Your task to perform on an android device: Go to calendar. Show me events next week Image 0: 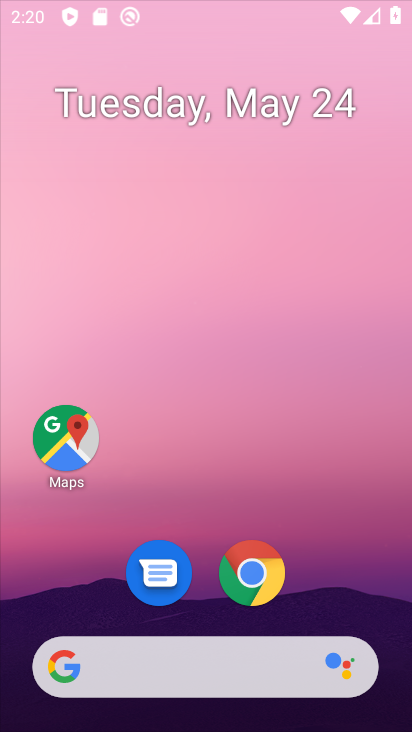
Step 0: drag from (362, 575) to (292, 165)
Your task to perform on an android device: Go to calendar. Show me events next week Image 1: 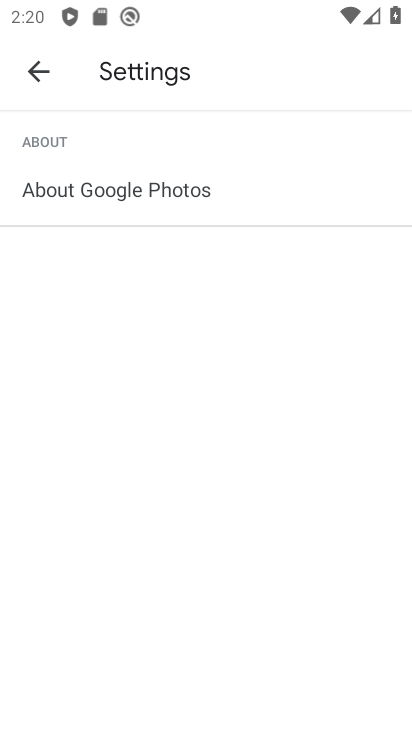
Step 1: press back button
Your task to perform on an android device: Go to calendar. Show me events next week Image 2: 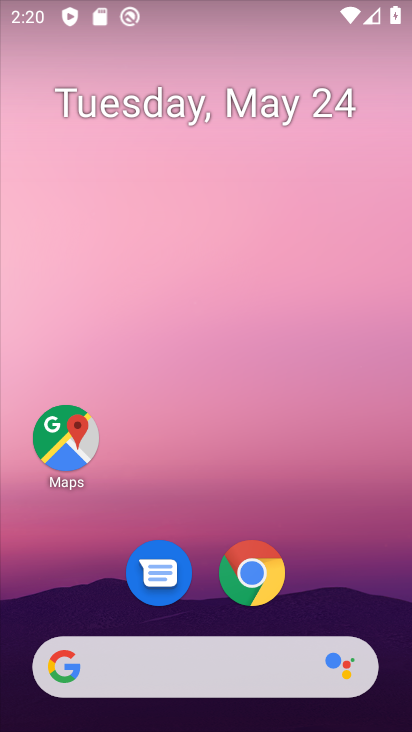
Step 2: drag from (335, 582) to (236, 39)
Your task to perform on an android device: Go to calendar. Show me events next week Image 3: 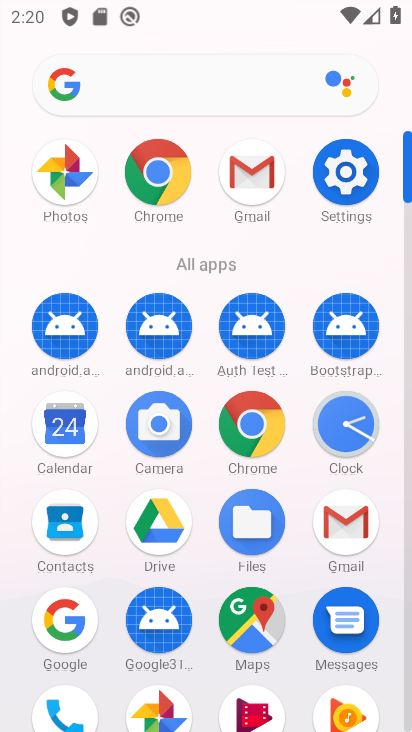
Step 3: drag from (2, 582) to (4, 258)
Your task to perform on an android device: Go to calendar. Show me events next week Image 4: 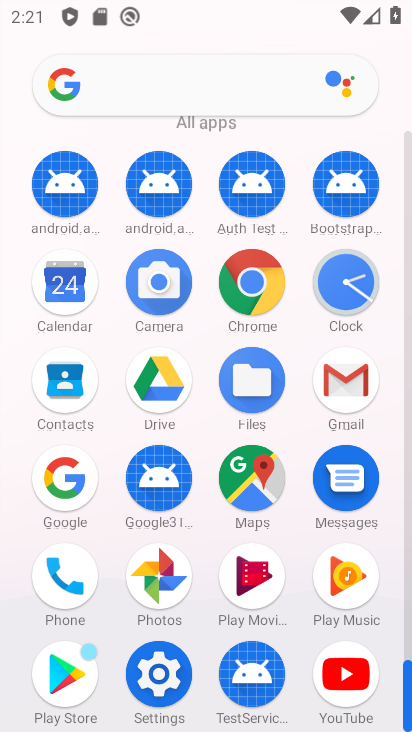
Step 4: click (63, 273)
Your task to perform on an android device: Go to calendar. Show me events next week Image 5: 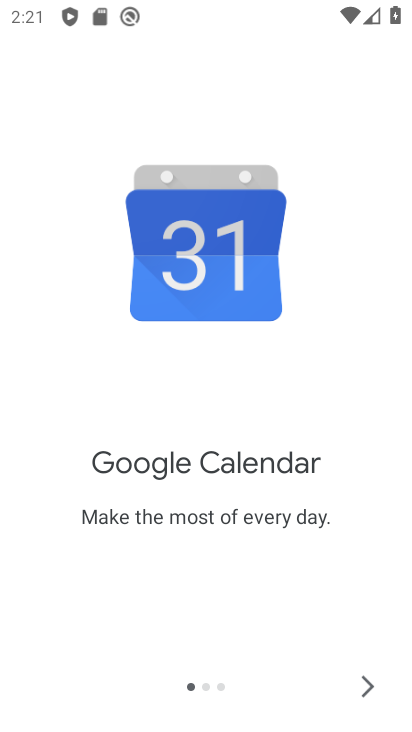
Step 5: click (365, 693)
Your task to perform on an android device: Go to calendar. Show me events next week Image 6: 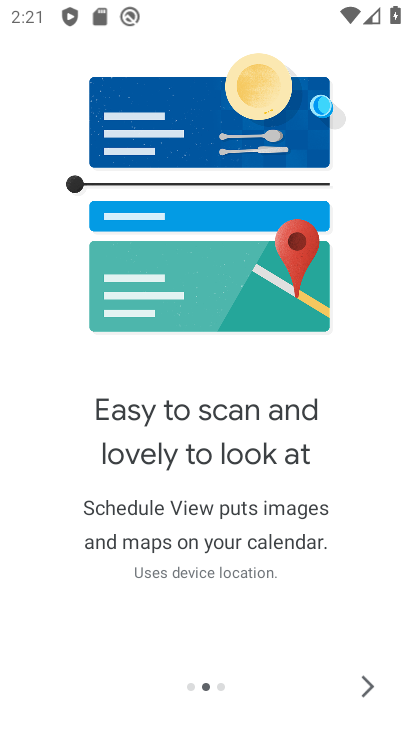
Step 6: click (365, 693)
Your task to perform on an android device: Go to calendar. Show me events next week Image 7: 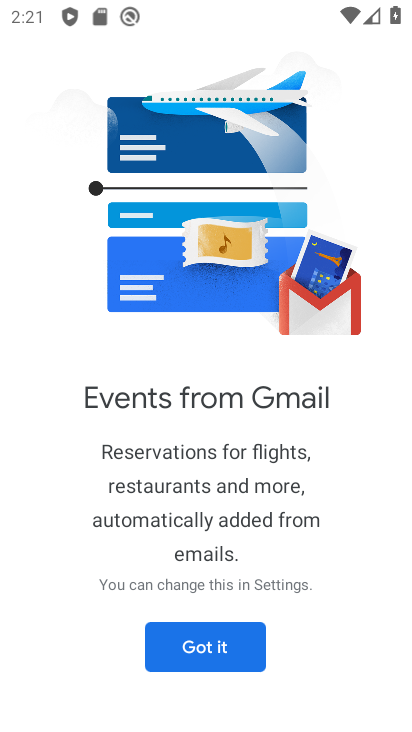
Step 7: click (214, 663)
Your task to perform on an android device: Go to calendar. Show me events next week Image 8: 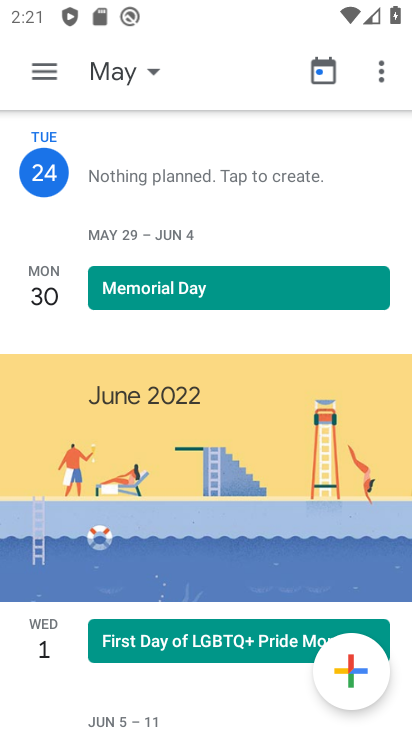
Step 8: click (39, 73)
Your task to perform on an android device: Go to calendar. Show me events next week Image 9: 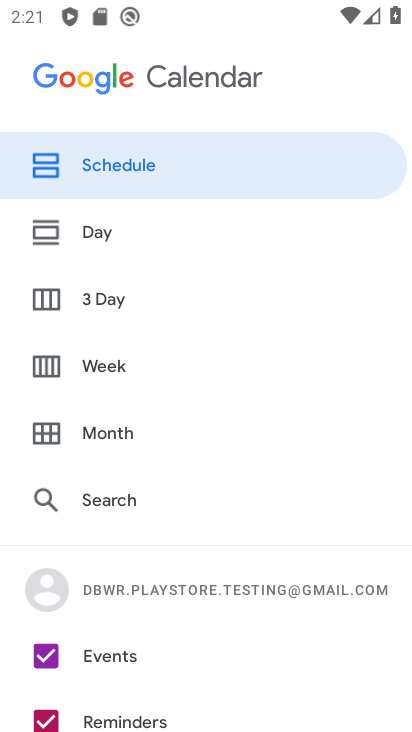
Step 9: click (129, 360)
Your task to perform on an android device: Go to calendar. Show me events next week Image 10: 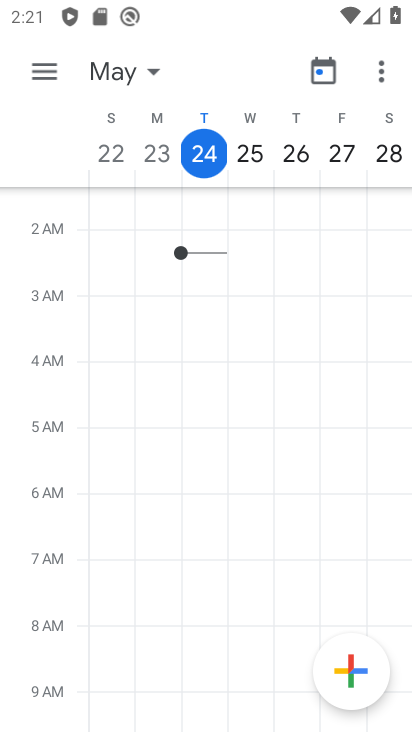
Step 10: task complete